Your task to perform on an android device: What is the recent news? Image 0: 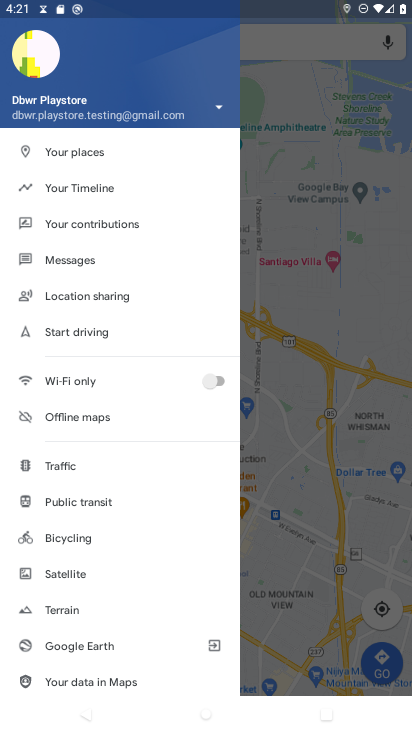
Step 0: press home button
Your task to perform on an android device: What is the recent news? Image 1: 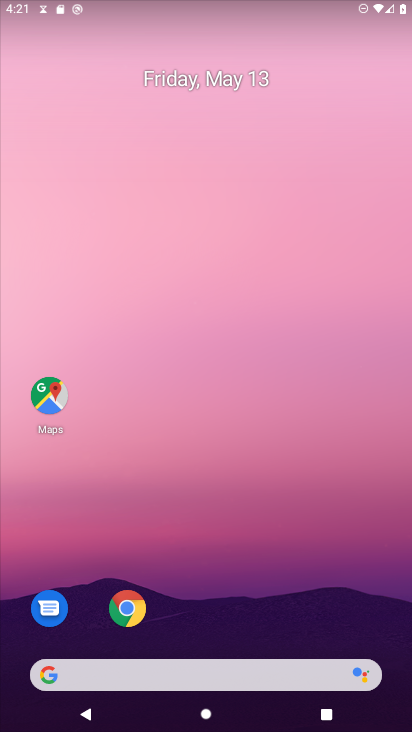
Step 1: drag from (308, 623) to (314, 0)
Your task to perform on an android device: What is the recent news? Image 2: 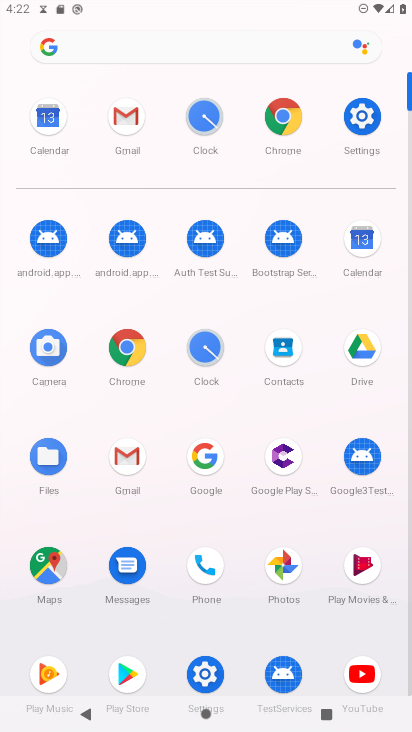
Step 2: click (130, 356)
Your task to perform on an android device: What is the recent news? Image 3: 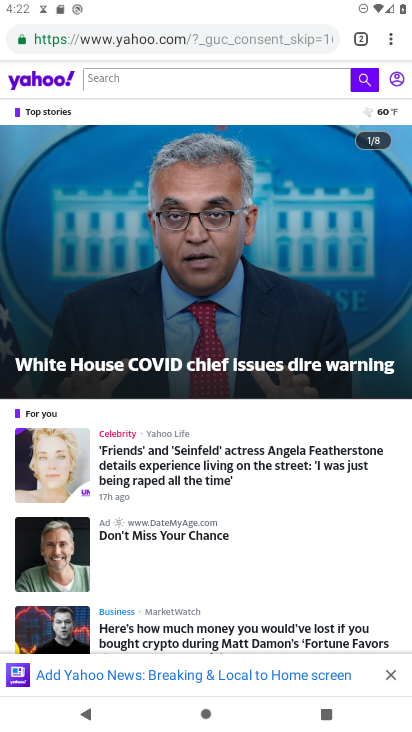
Step 3: click (254, 37)
Your task to perform on an android device: What is the recent news? Image 4: 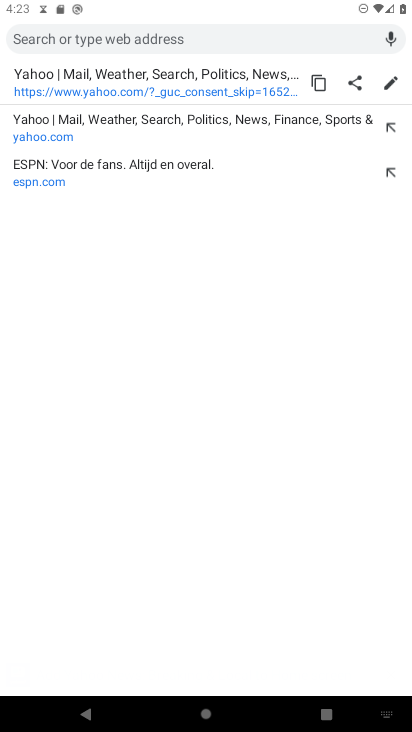
Step 4: type "recent news"
Your task to perform on an android device: What is the recent news? Image 5: 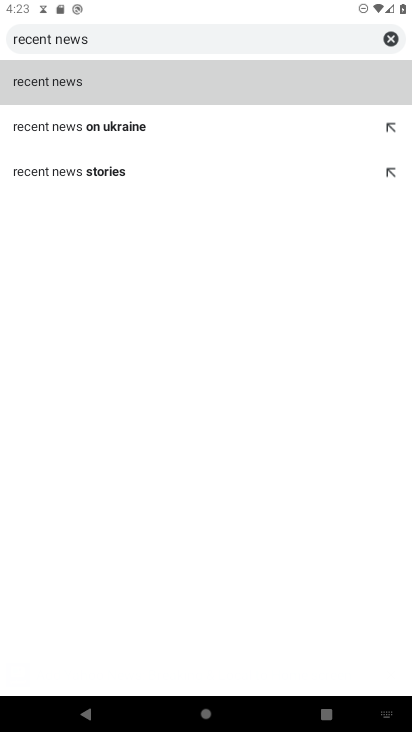
Step 5: click (109, 78)
Your task to perform on an android device: What is the recent news? Image 6: 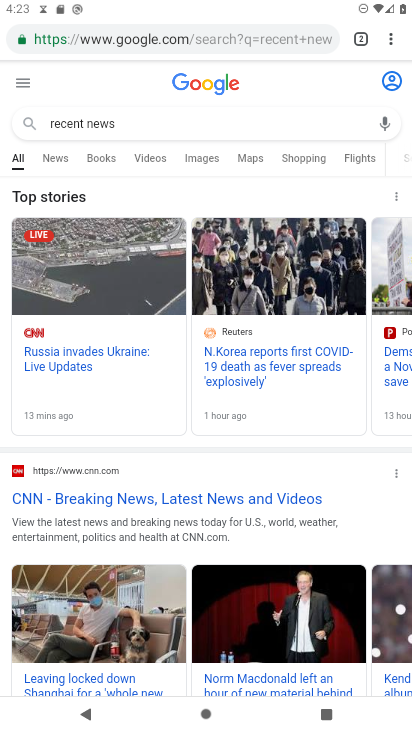
Step 6: task complete